Your task to perform on an android device: open app "Facebook Messenger" (install if not already installed) Image 0: 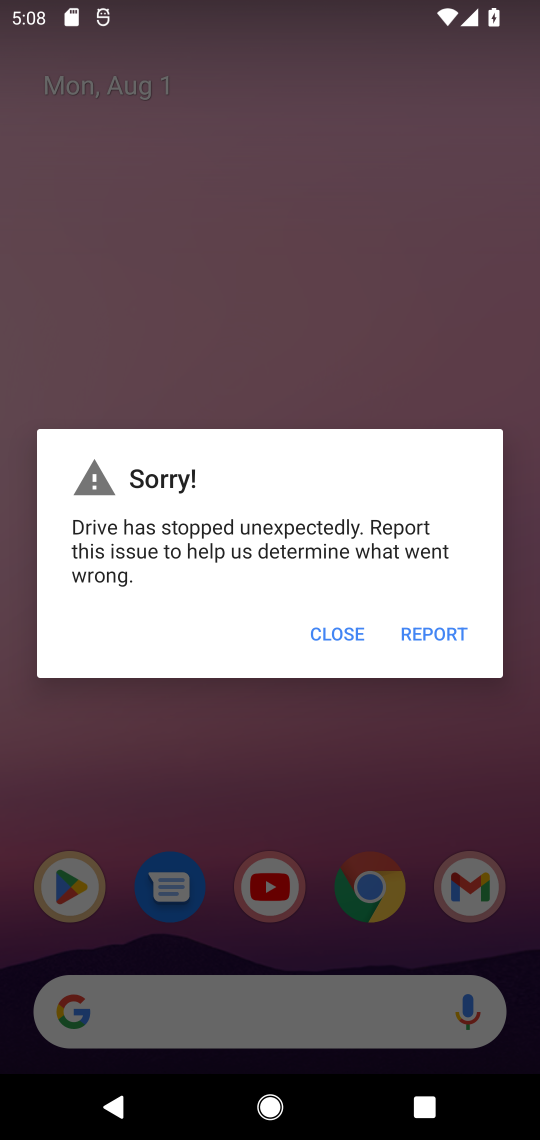
Step 0: click (343, 642)
Your task to perform on an android device: open app "Facebook Messenger" (install if not already installed) Image 1: 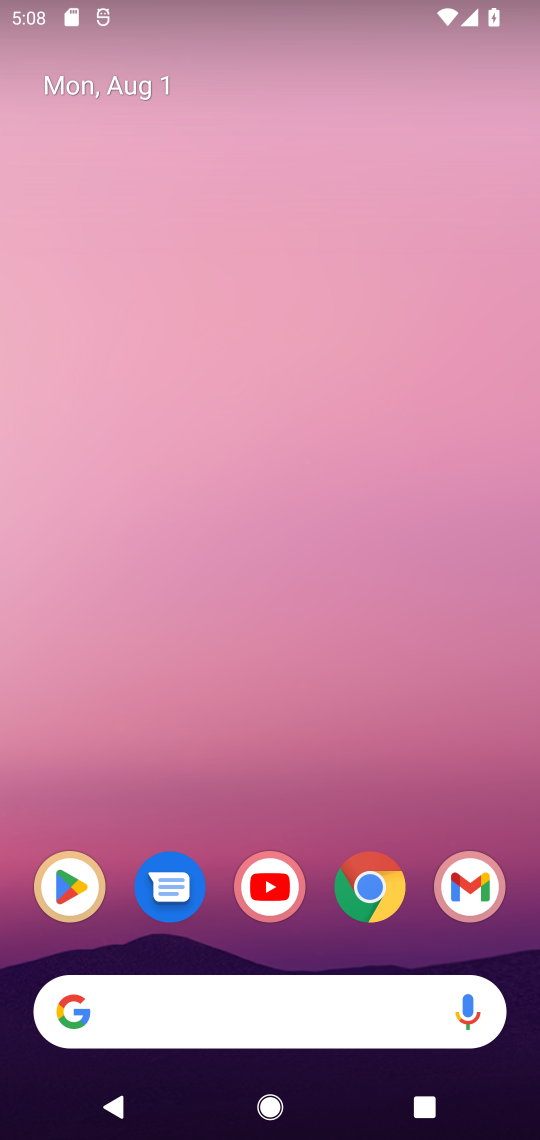
Step 1: click (81, 890)
Your task to perform on an android device: open app "Facebook Messenger" (install if not already installed) Image 2: 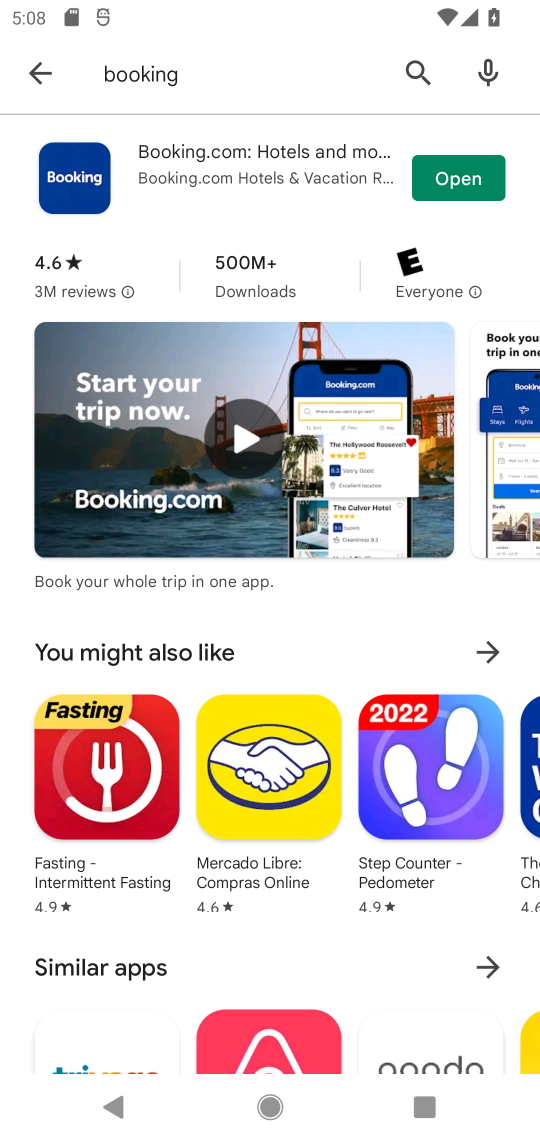
Step 2: click (73, 94)
Your task to perform on an android device: open app "Facebook Messenger" (install if not already installed) Image 3: 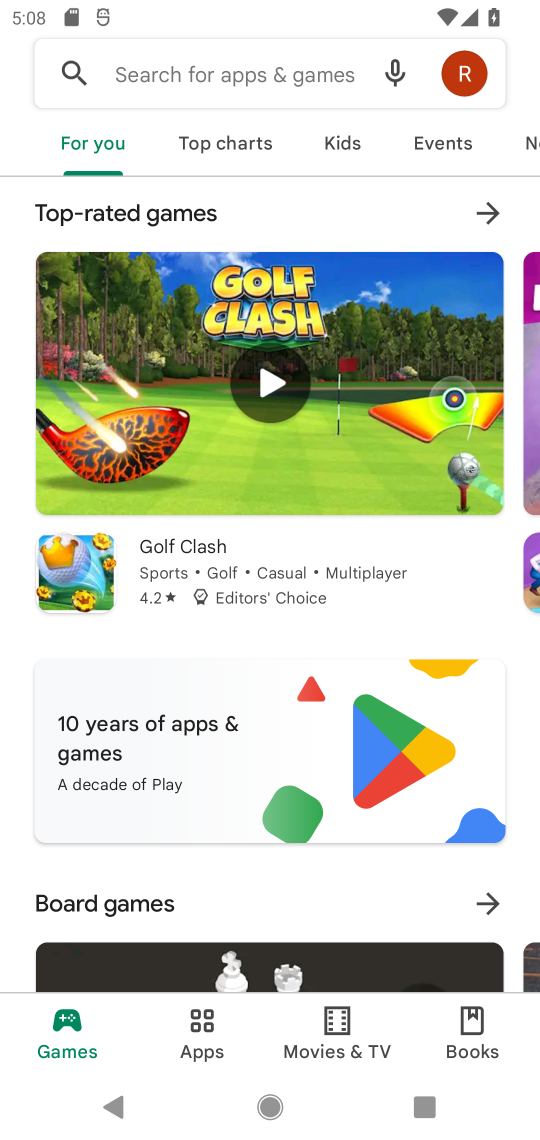
Step 3: click (141, 87)
Your task to perform on an android device: open app "Facebook Messenger" (install if not already installed) Image 4: 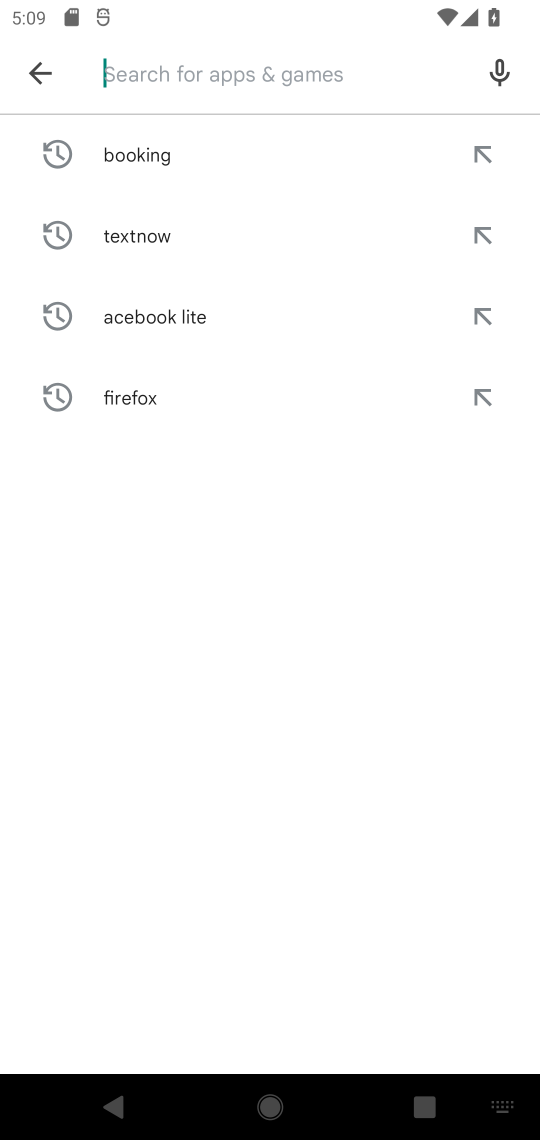
Step 4: type "Facebook Messenger"
Your task to perform on an android device: open app "Facebook Messenger" (install if not already installed) Image 5: 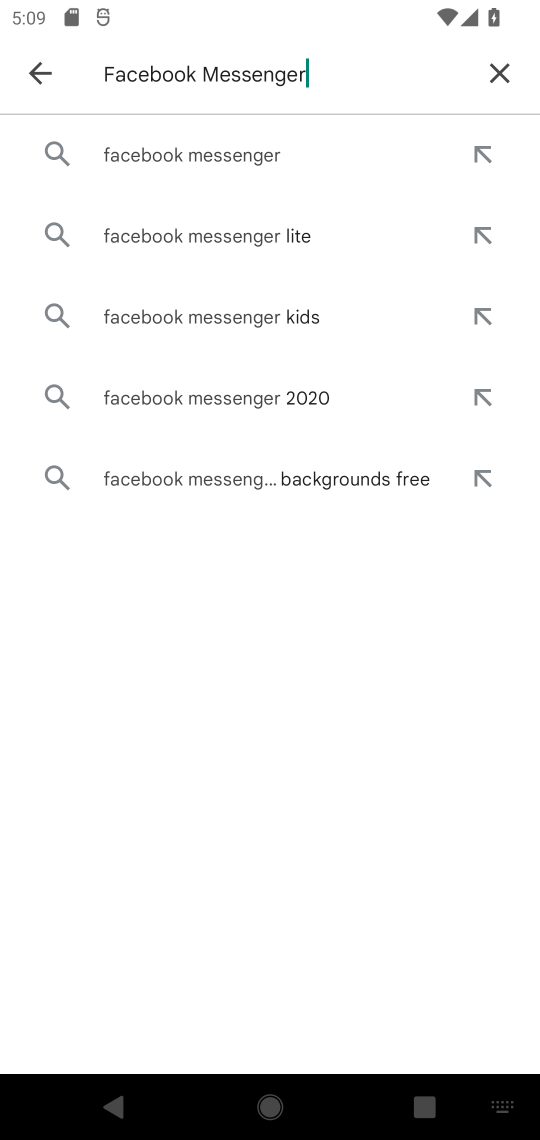
Step 5: click (142, 182)
Your task to perform on an android device: open app "Facebook Messenger" (install if not already installed) Image 6: 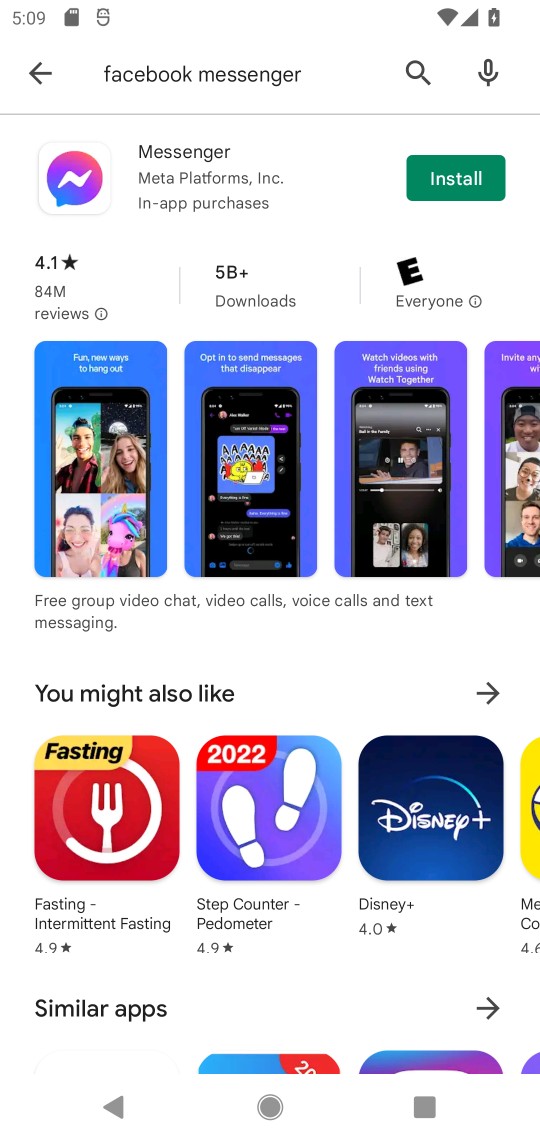
Step 6: task complete